Your task to perform on an android device: toggle javascript in the chrome app Image 0: 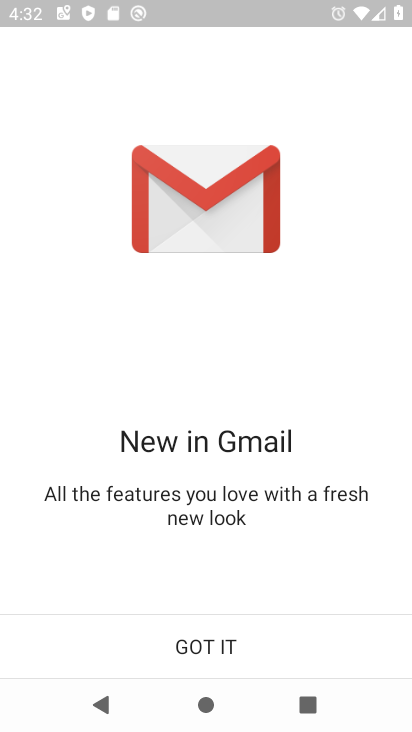
Step 0: press home button
Your task to perform on an android device: toggle javascript in the chrome app Image 1: 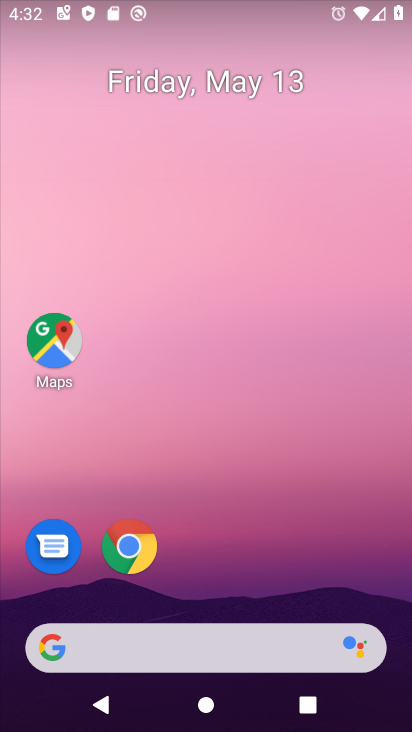
Step 1: click (132, 538)
Your task to perform on an android device: toggle javascript in the chrome app Image 2: 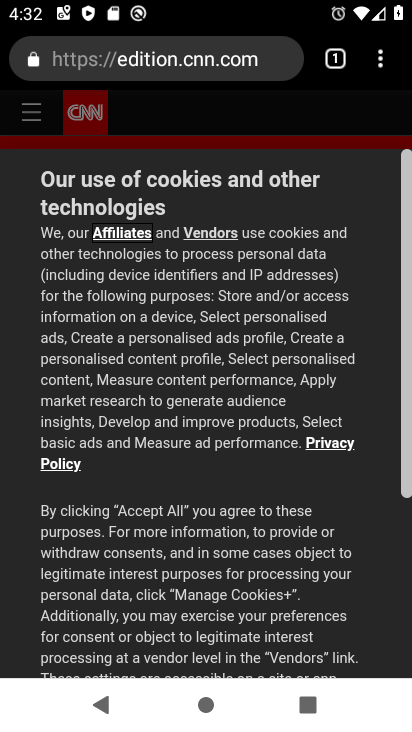
Step 2: click (379, 56)
Your task to perform on an android device: toggle javascript in the chrome app Image 3: 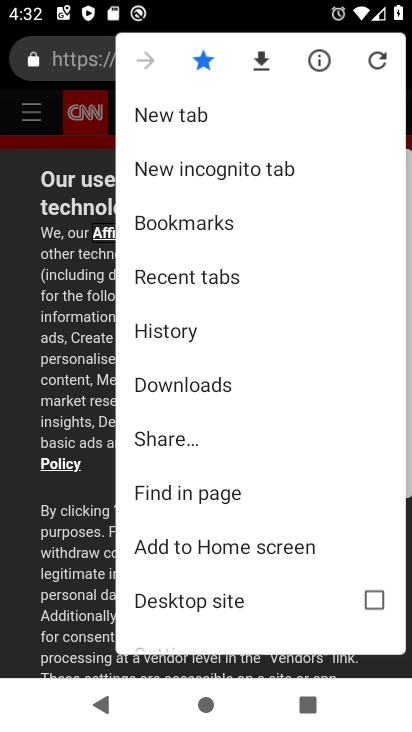
Step 3: drag from (214, 526) to (296, 217)
Your task to perform on an android device: toggle javascript in the chrome app Image 4: 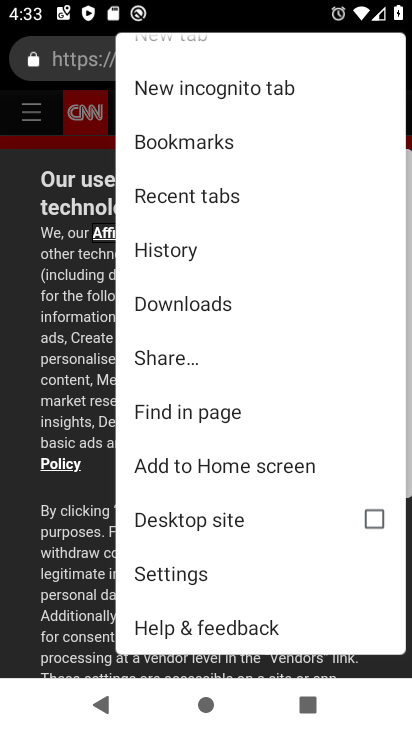
Step 4: click (184, 582)
Your task to perform on an android device: toggle javascript in the chrome app Image 5: 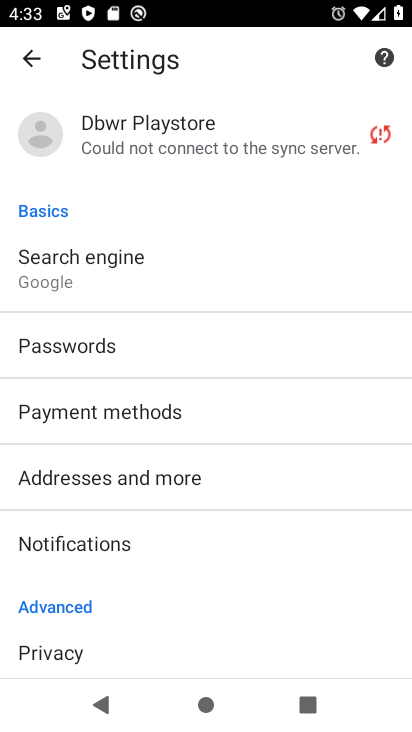
Step 5: drag from (120, 532) to (197, 177)
Your task to perform on an android device: toggle javascript in the chrome app Image 6: 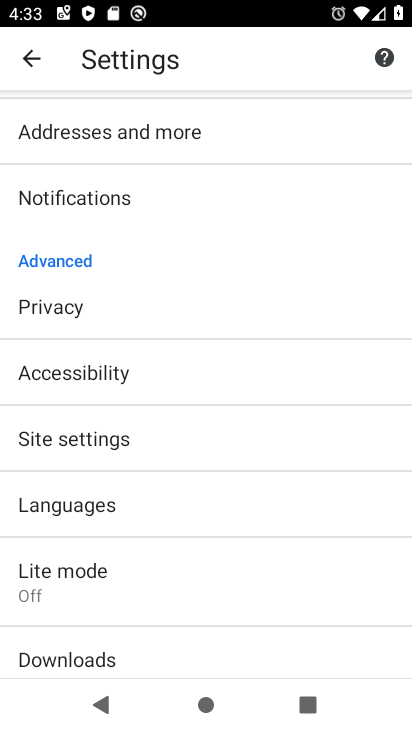
Step 6: click (106, 441)
Your task to perform on an android device: toggle javascript in the chrome app Image 7: 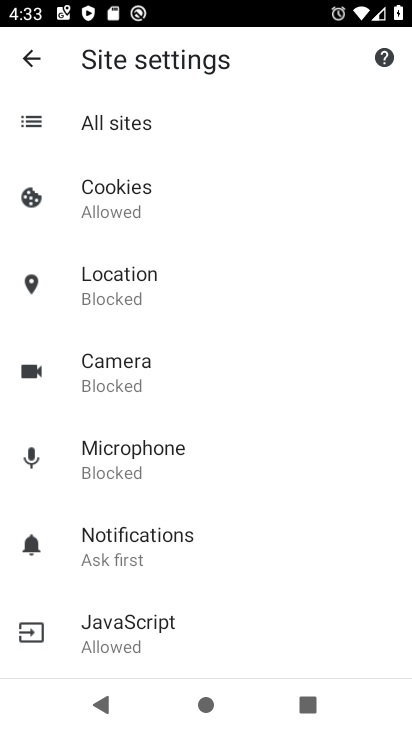
Step 7: click (131, 632)
Your task to perform on an android device: toggle javascript in the chrome app Image 8: 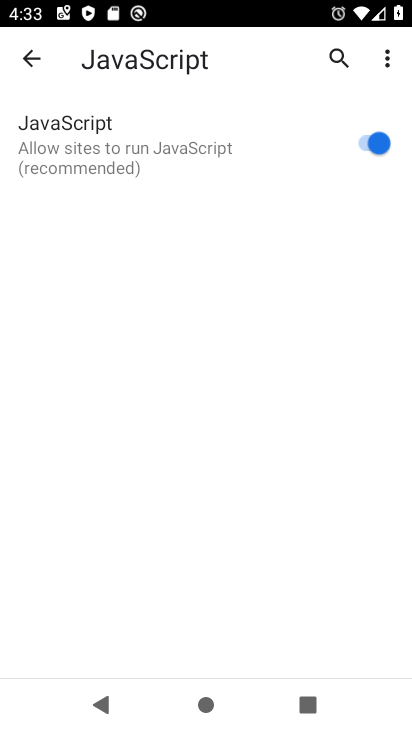
Step 8: click (339, 143)
Your task to perform on an android device: toggle javascript in the chrome app Image 9: 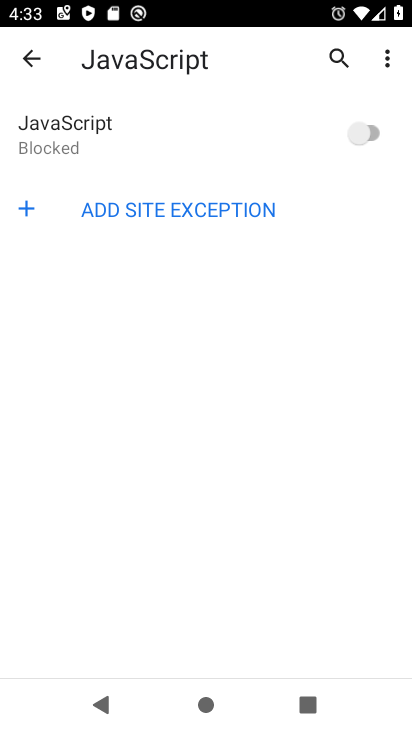
Step 9: task complete